Your task to perform on an android device: allow cookies in the chrome app Image 0: 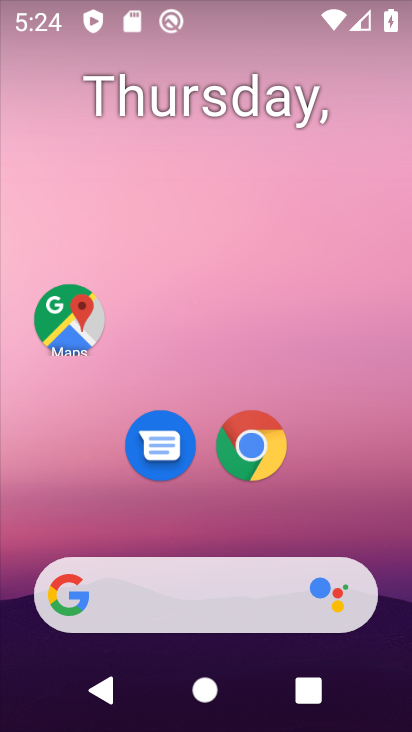
Step 0: click (266, 440)
Your task to perform on an android device: allow cookies in the chrome app Image 1: 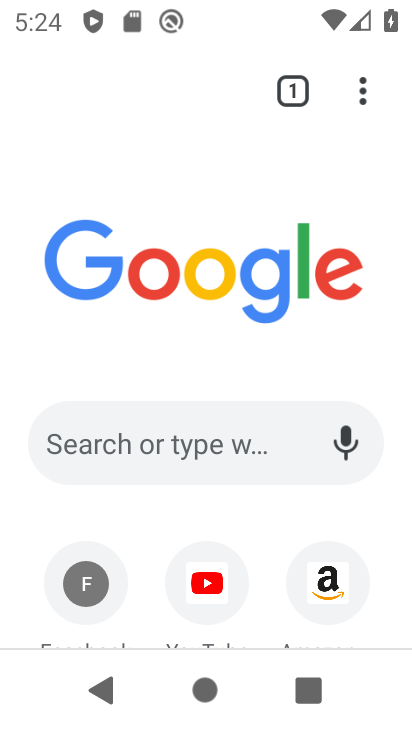
Step 1: drag from (364, 99) to (132, 478)
Your task to perform on an android device: allow cookies in the chrome app Image 2: 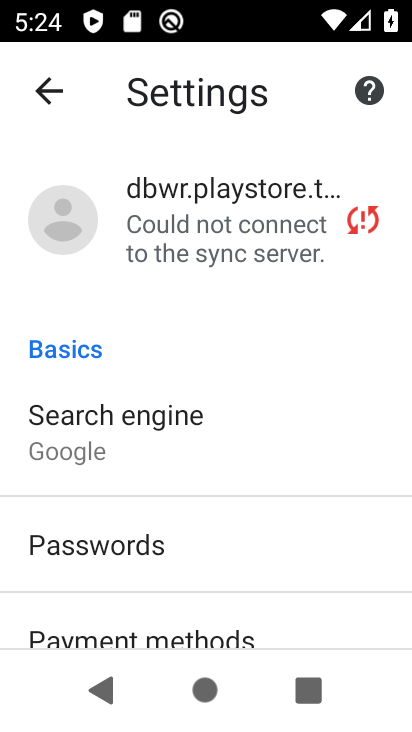
Step 2: drag from (268, 573) to (282, 254)
Your task to perform on an android device: allow cookies in the chrome app Image 3: 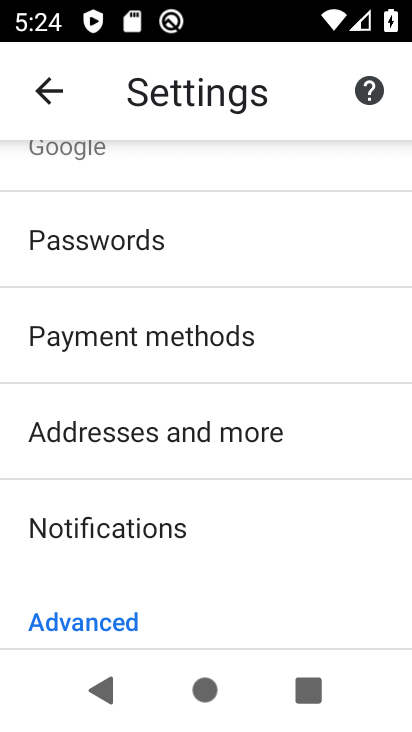
Step 3: drag from (264, 576) to (268, 235)
Your task to perform on an android device: allow cookies in the chrome app Image 4: 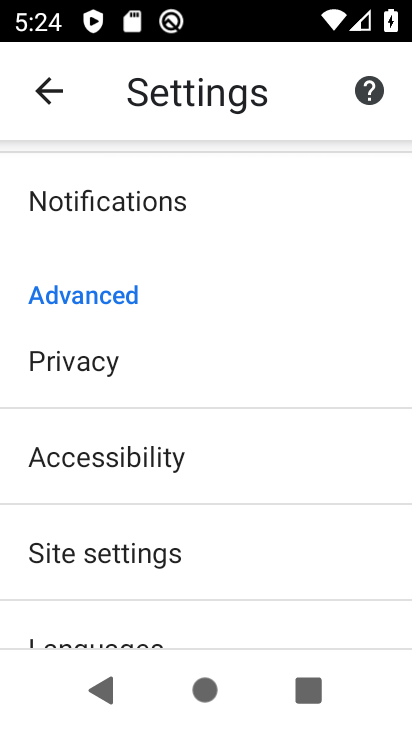
Step 4: click (149, 550)
Your task to perform on an android device: allow cookies in the chrome app Image 5: 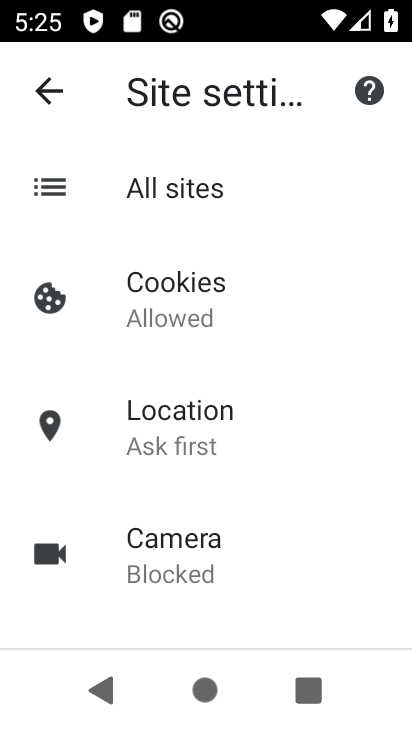
Step 5: click (192, 299)
Your task to perform on an android device: allow cookies in the chrome app Image 6: 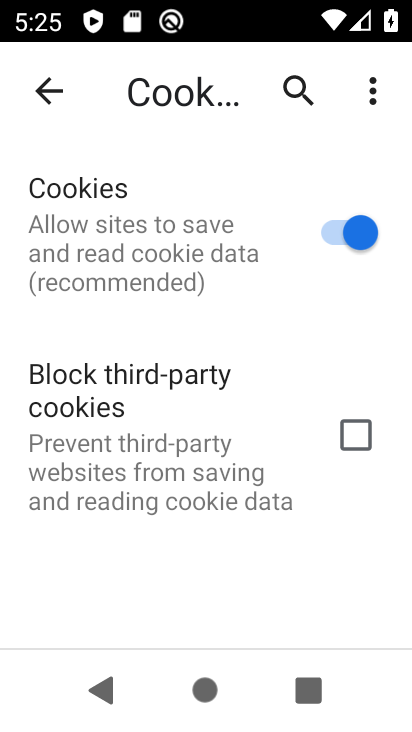
Step 6: task complete